Your task to perform on an android device: Show me the alarms in the clock app Image 0: 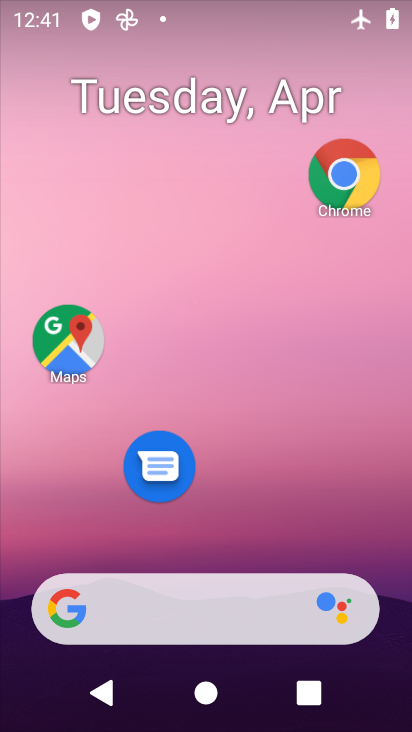
Step 0: drag from (251, 181) to (237, 0)
Your task to perform on an android device: Show me the alarms in the clock app Image 1: 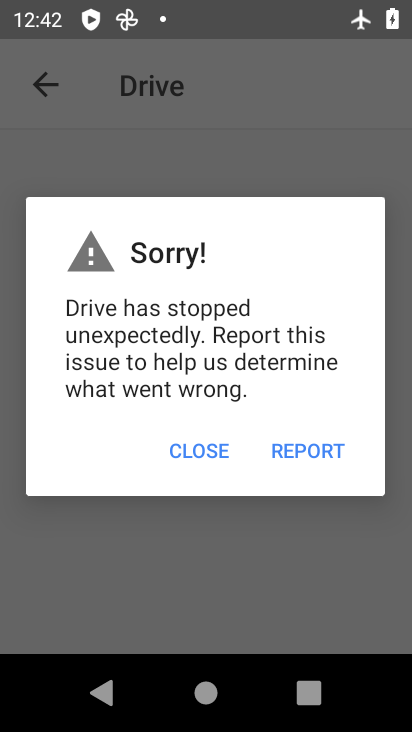
Step 1: press home button
Your task to perform on an android device: Show me the alarms in the clock app Image 2: 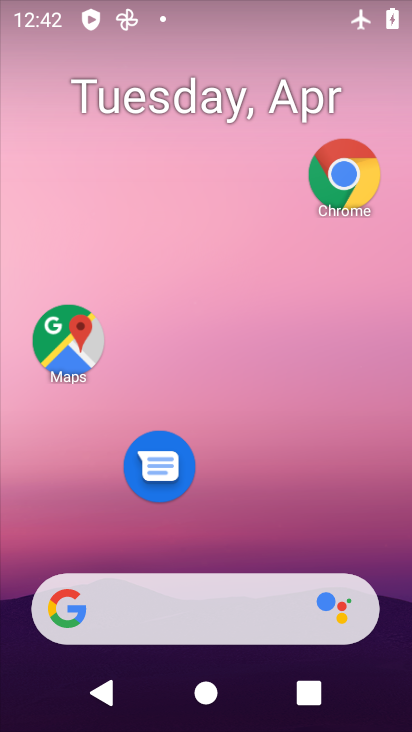
Step 2: drag from (245, 643) to (224, 145)
Your task to perform on an android device: Show me the alarms in the clock app Image 3: 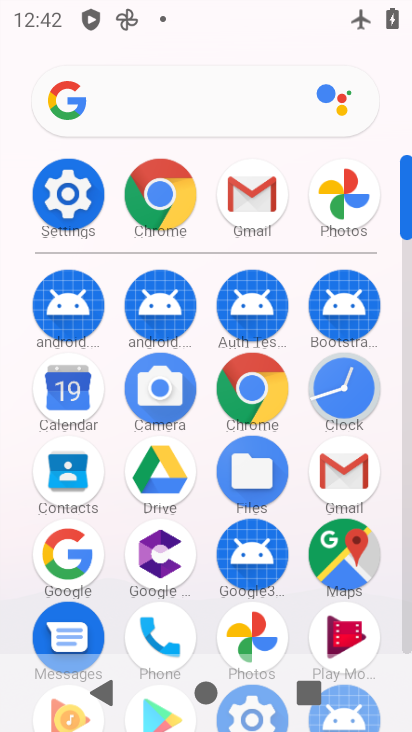
Step 3: click (342, 402)
Your task to perform on an android device: Show me the alarms in the clock app Image 4: 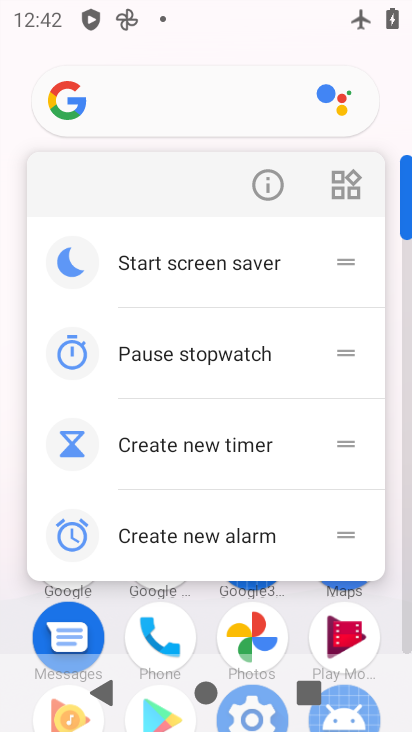
Step 4: press back button
Your task to perform on an android device: Show me the alarms in the clock app Image 5: 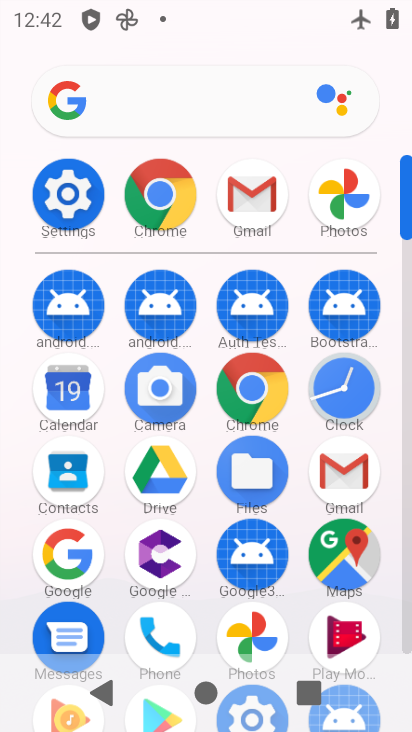
Step 5: click (344, 391)
Your task to perform on an android device: Show me the alarms in the clock app Image 6: 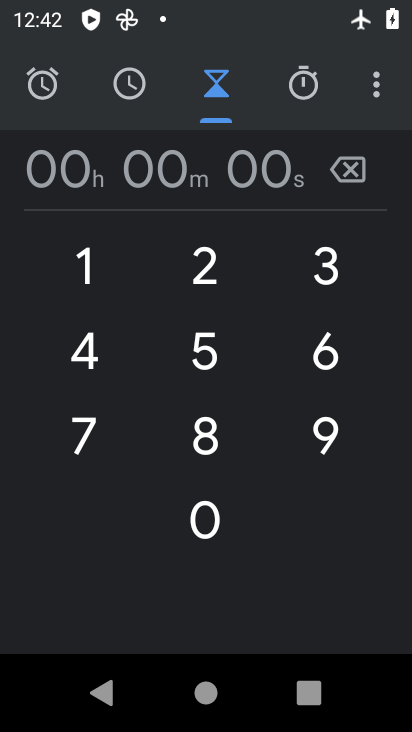
Step 6: click (47, 90)
Your task to perform on an android device: Show me the alarms in the clock app Image 7: 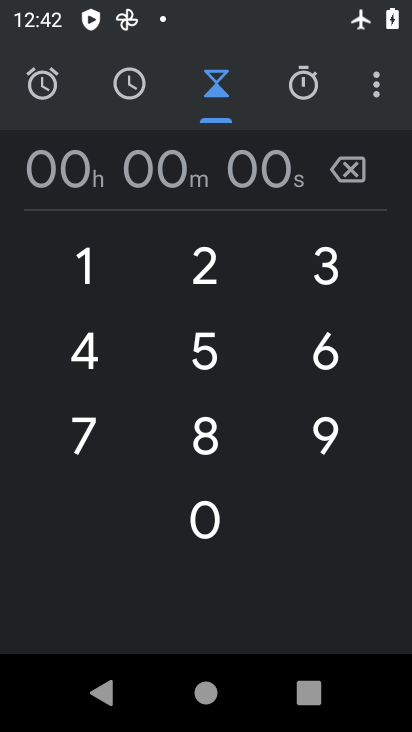
Step 7: click (40, 105)
Your task to perform on an android device: Show me the alarms in the clock app Image 8: 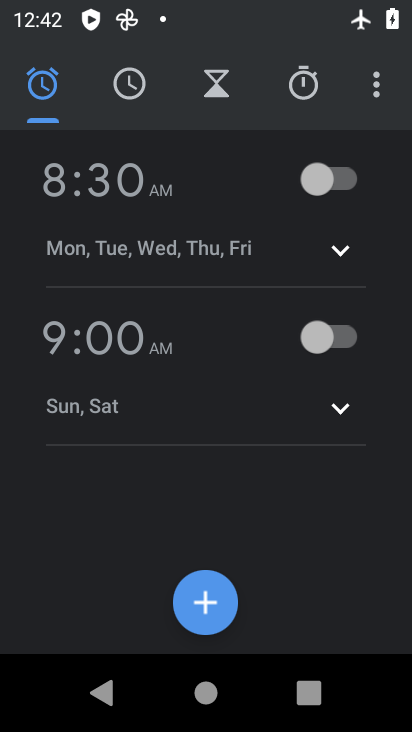
Step 8: task complete